Your task to perform on an android device: turn notification dots off Image 0: 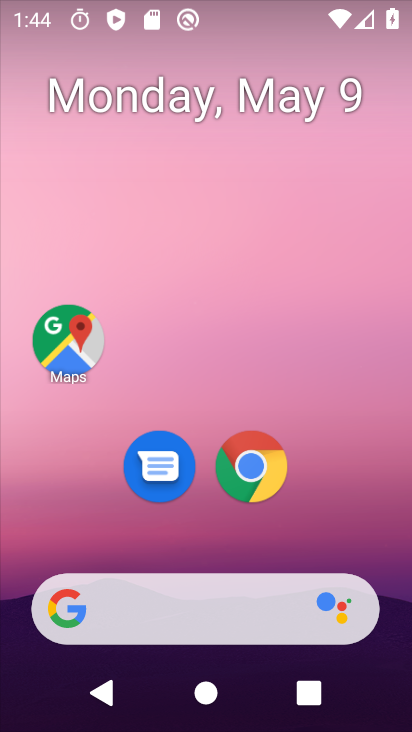
Step 0: drag from (161, 504) to (186, 270)
Your task to perform on an android device: turn notification dots off Image 1: 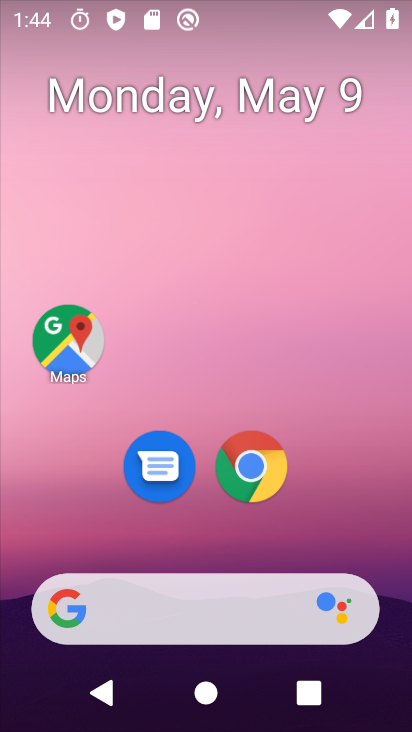
Step 1: drag from (163, 531) to (181, 323)
Your task to perform on an android device: turn notification dots off Image 2: 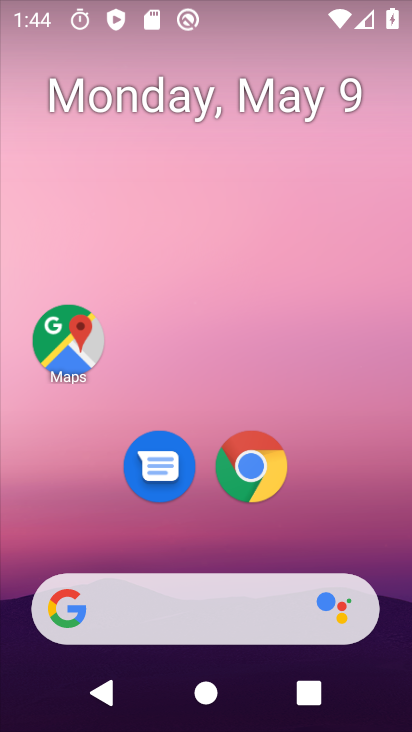
Step 2: drag from (185, 650) to (282, 179)
Your task to perform on an android device: turn notification dots off Image 3: 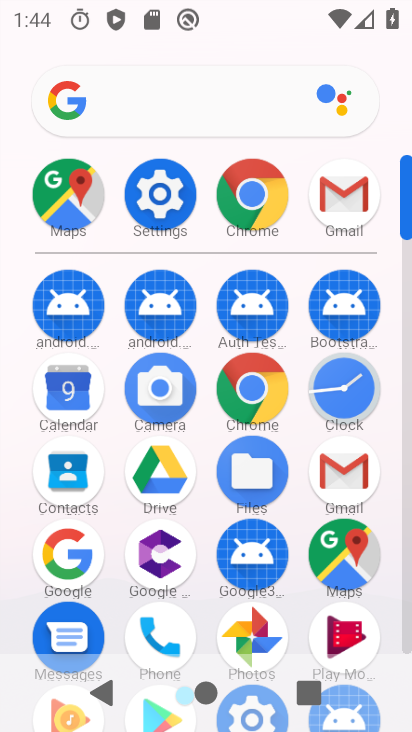
Step 3: click (170, 216)
Your task to perform on an android device: turn notification dots off Image 4: 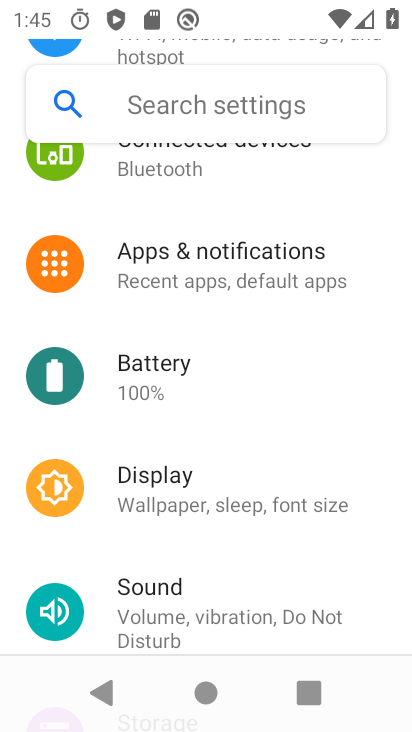
Step 4: click (161, 279)
Your task to perform on an android device: turn notification dots off Image 5: 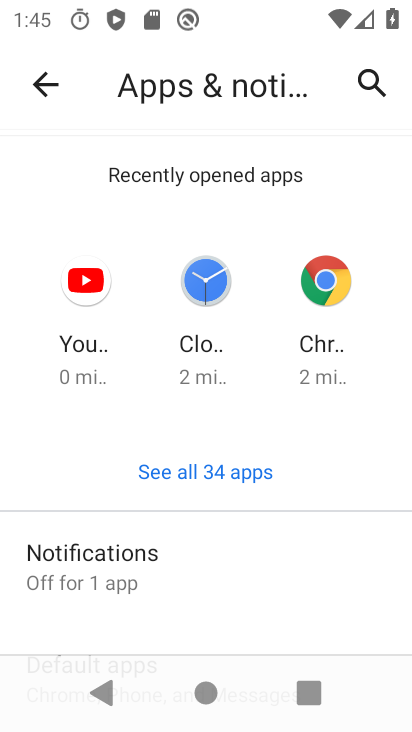
Step 5: click (146, 582)
Your task to perform on an android device: turn notification dots off Image 6: 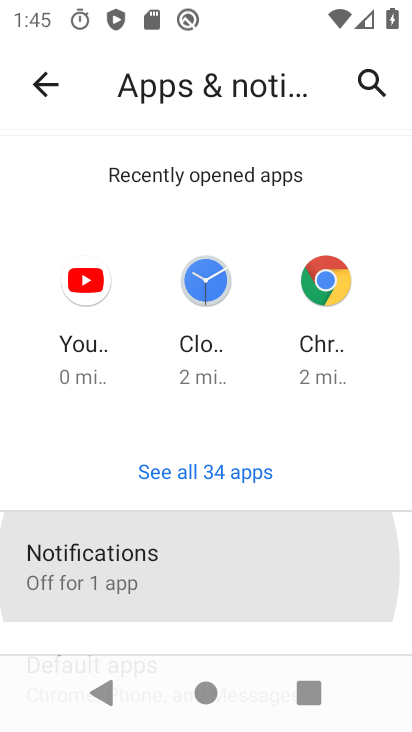
Step 6: click (146, 582)
Your task to perform on an android device: turn notification dots off Image 7: 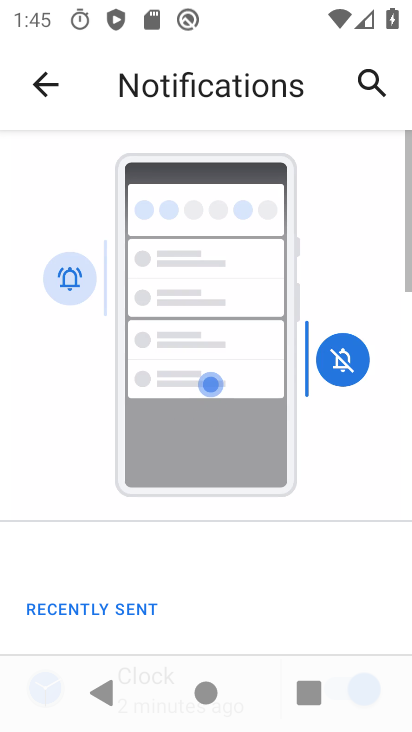
Step 7: drag from (178, 602) to (215, 198)
Your task to perform on an android device: turn notification dots off Image 8: 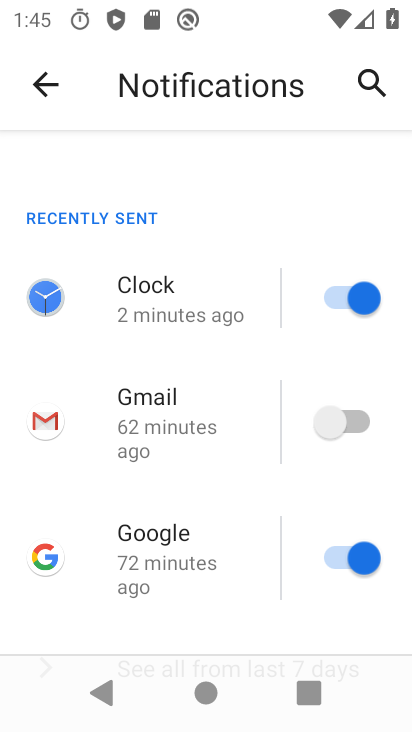
Step 8: drag from (184, 563) to (161, 205)
Your task to perform on an android device: turn notification dots off Image 9: 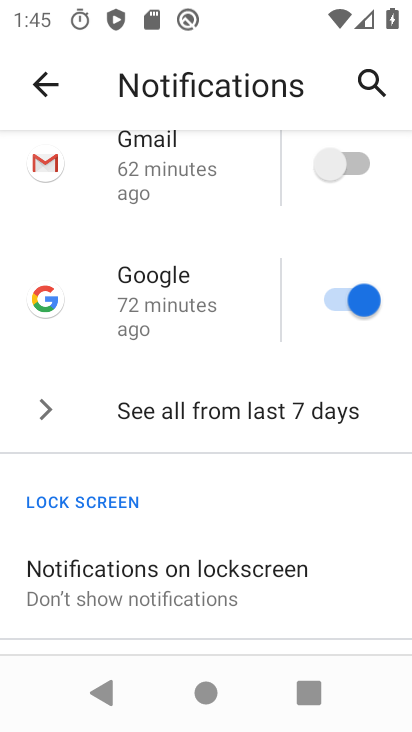
Step 9: drag from (162, 461) to (182, 255)
Your task to perform on an android device: turn notification dots off Image 10: 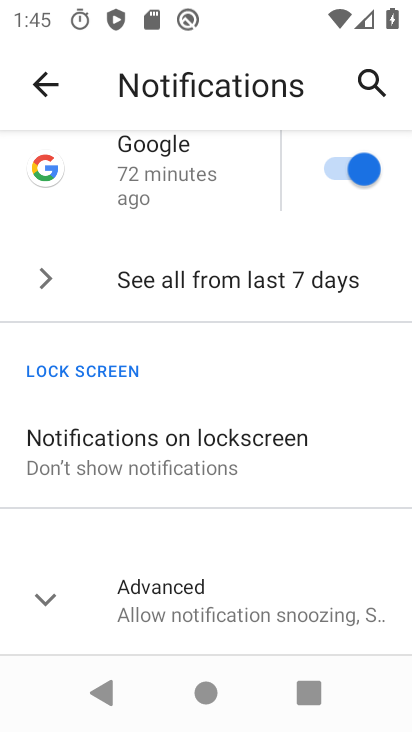
Step 10: drag from (186, 519) to (185, 330)
Your task to perform on an android device: turn notification dots off Image 11: 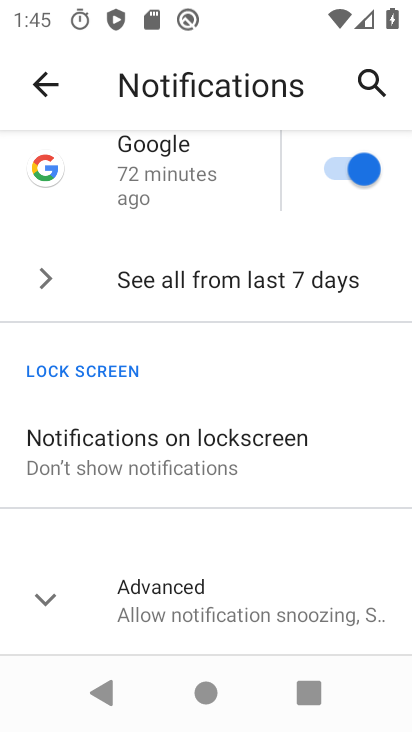
Step 11: click (195, 587)
Your task to perform on an android device: turn notification dots off Image 12: 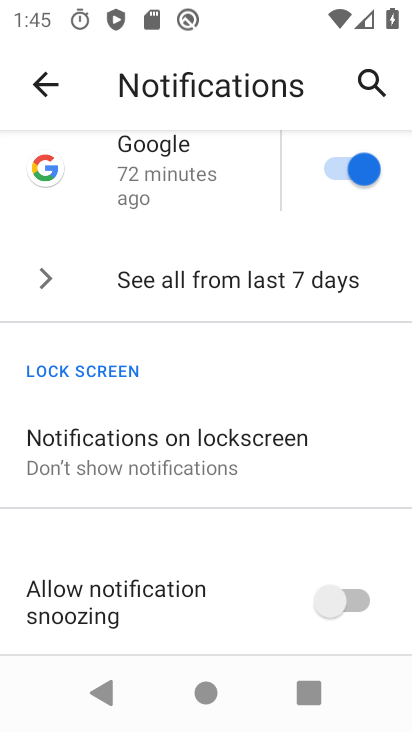
Step 12: drag from (195, 587) to (233, 337)
Your task to perform on an android device: turn notification dots off Image 13: 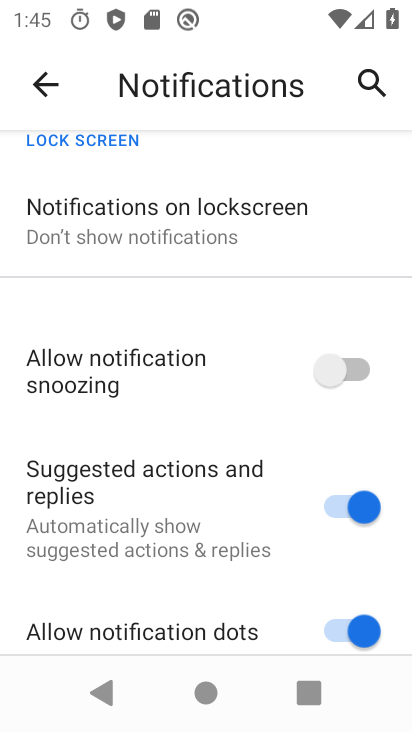
Step 13: click (335, 626)
Your task to perform on an android device: turn notification dots off Image 14: 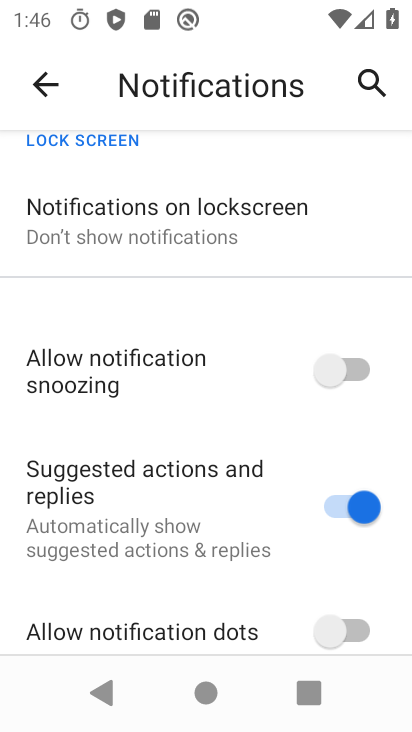
Step 14: task complete